Your task to perform on an android device: toggle notification dots Image 0: 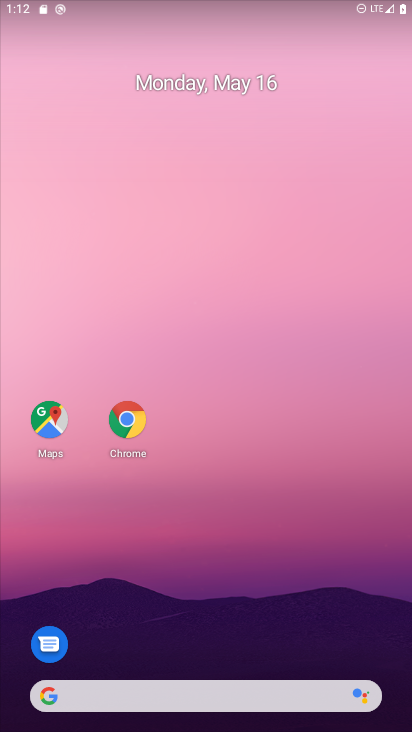
Step 0: drag from (128, 614) to (224, 1)
Your task to perform on an android device: toggle notification dots Image 1: 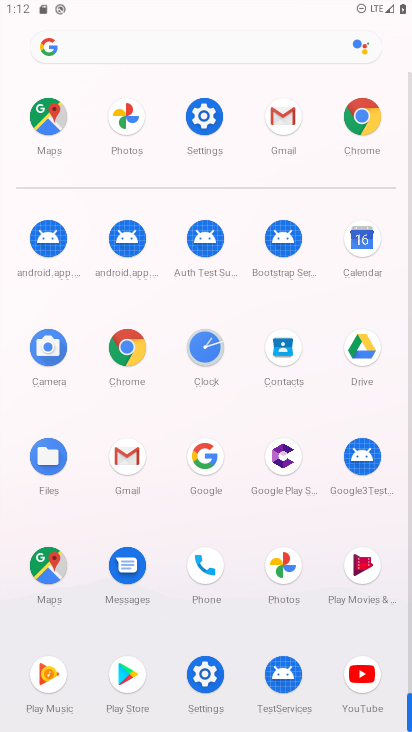
Step 1: click (195, 128)
Your task to perform on an android device: toggle notification dots Image 2: 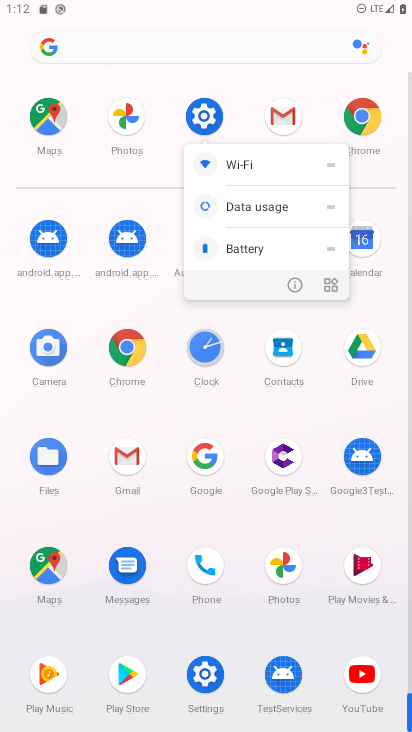
Step 2: click (303, 283)
Your task to perform on an android device: toggle notification dots Image 3: 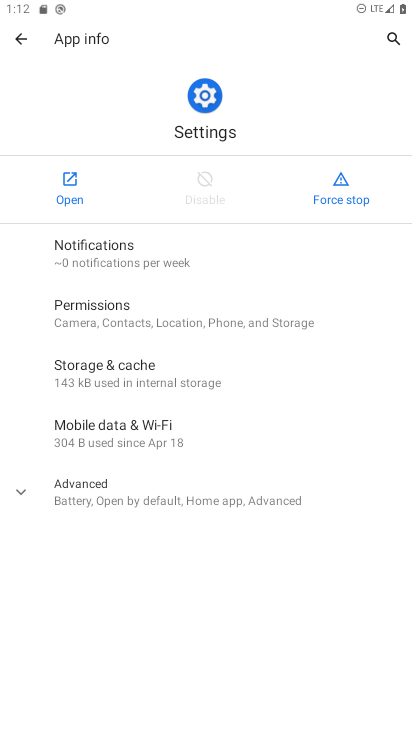
Step 3: drag from (218, 369) to (216, 149)
Your task to perform on an android device: toggle notification dots Image 4: 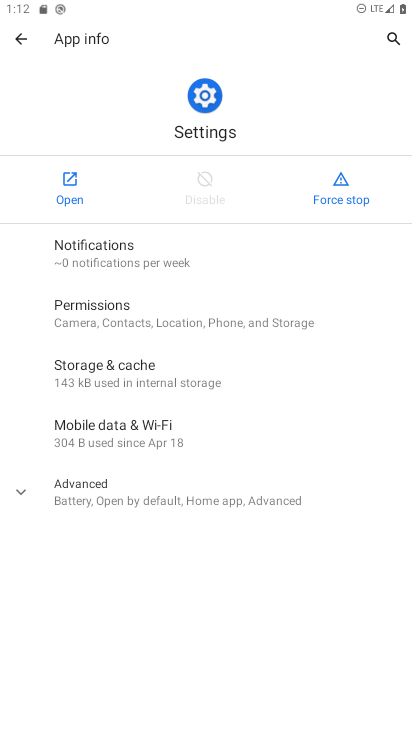
Step 4: click (58, 186)
Your task to perform on an android device: toggle notification dots Image 5: 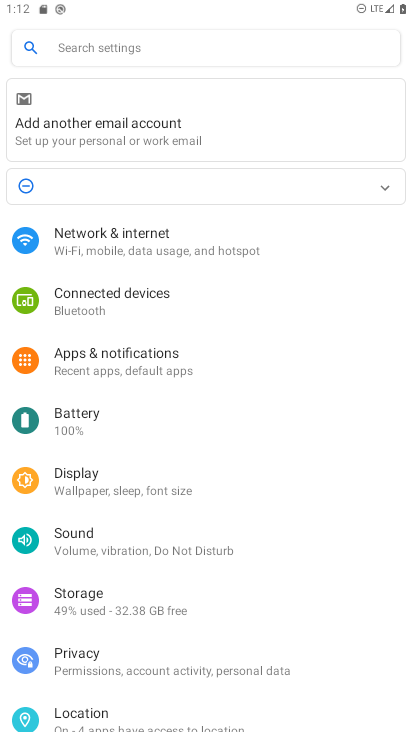
Step 5: click (103, 363)
Your task to perform on an android device: toggle notification dots Image 6: 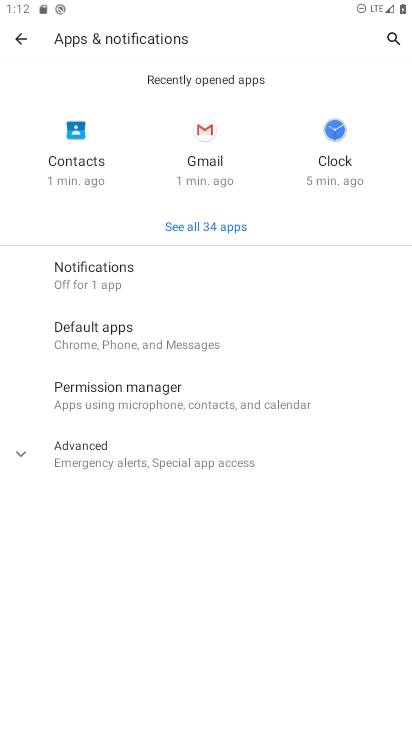
Step 6: click (218, 273)
Your task to perform on an android device: toggle notification dots Image 7: 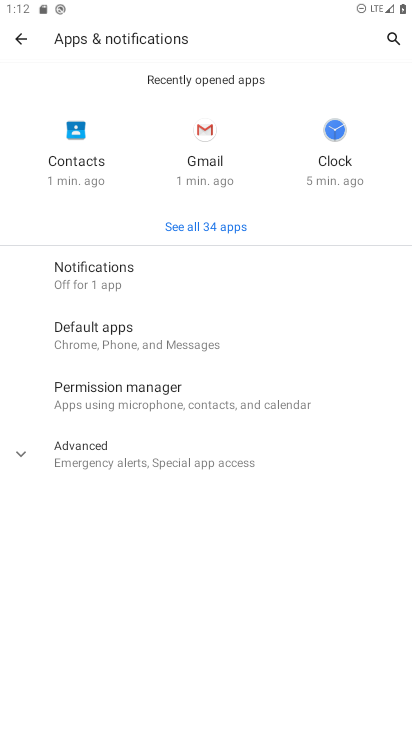
Step 7: click (209, 258)
Your task to perform on an android device: toggle notification dots Image 8: 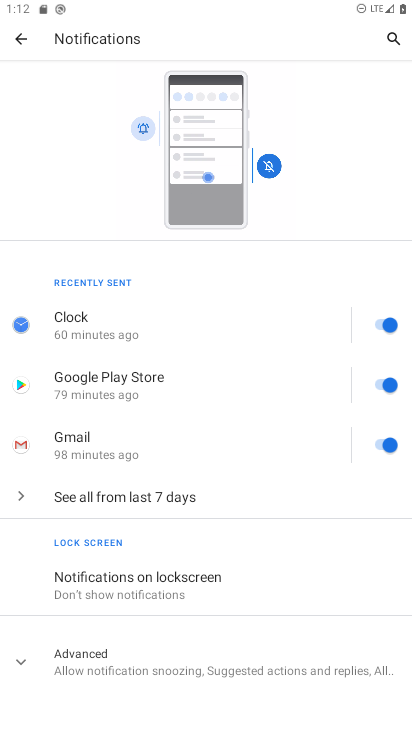
Step 8: drag from (225, 464) to (242, 96)
Your task to perform on an android device: toggle notification dots Image 9: 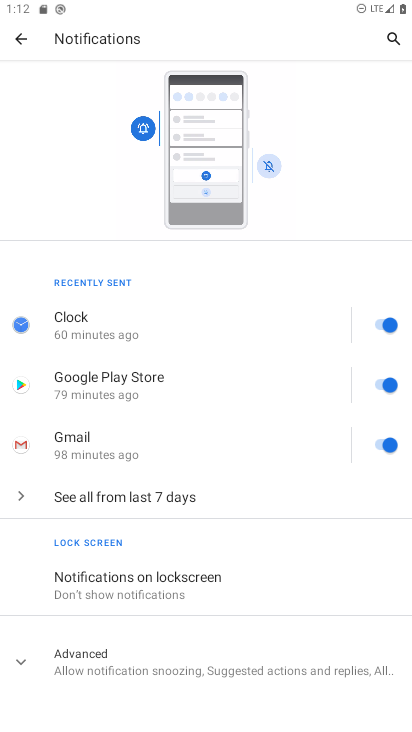
Step 9: click (147, 668)
Your task to perform on an android device: toggle notification dots Image 10: 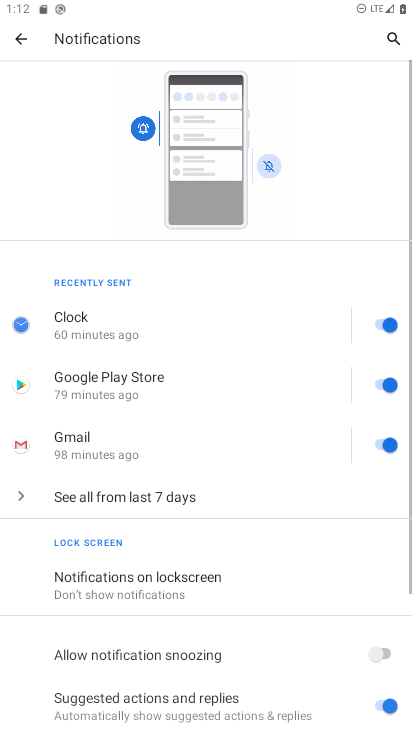
Step 10: drag from (151, 621) to (265, 141)
Your task to perform on an android device: toggle notification dots Image 11: 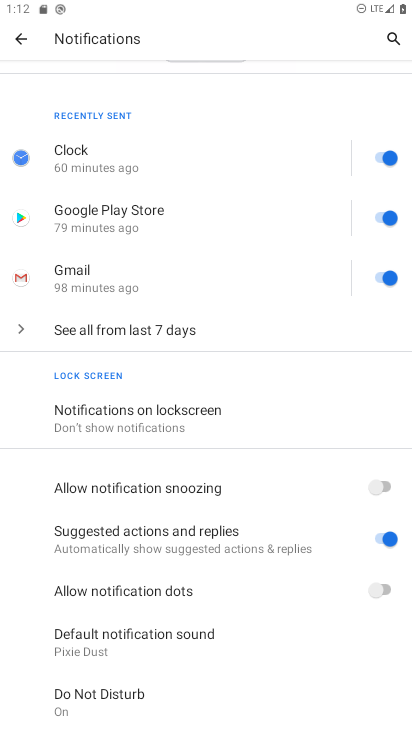
Step 11: click (279, 583)
Your task to perform on an android device: toggle notification dots Image 12: 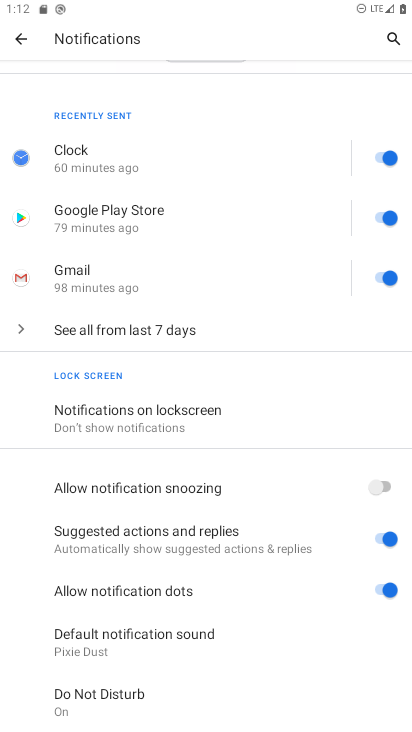
Step 12: task complete